Your task to perform on an android device: Open notification settings Image 0: 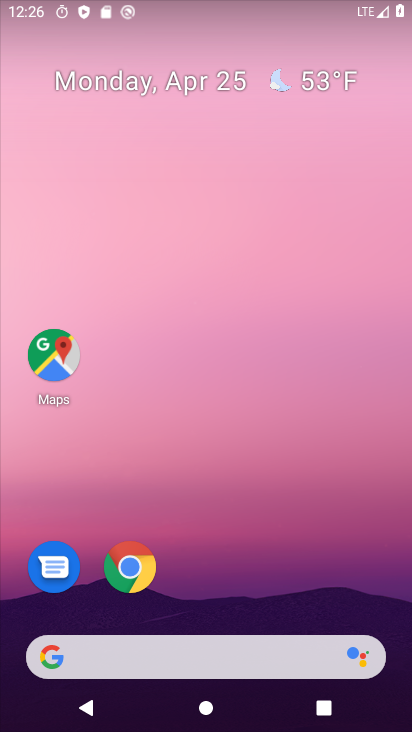
Step 0: drag from (303, 571) to (279, 117)
Your task to perform on an android device: Open notification settings Image 1: 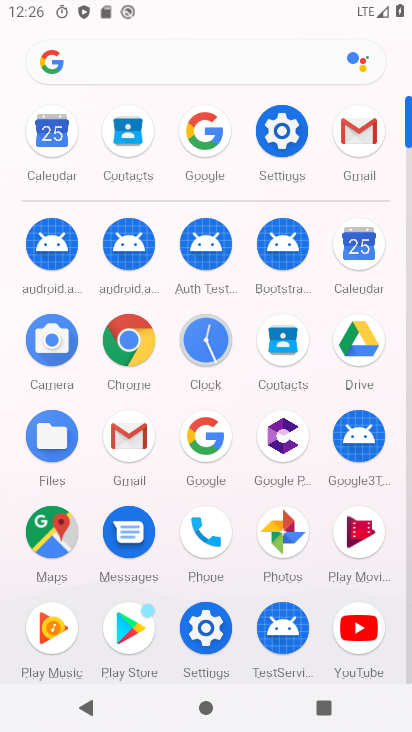
Step 1: click (293, 141)
Your task to perform on an android device: Open notification settings Image 2: 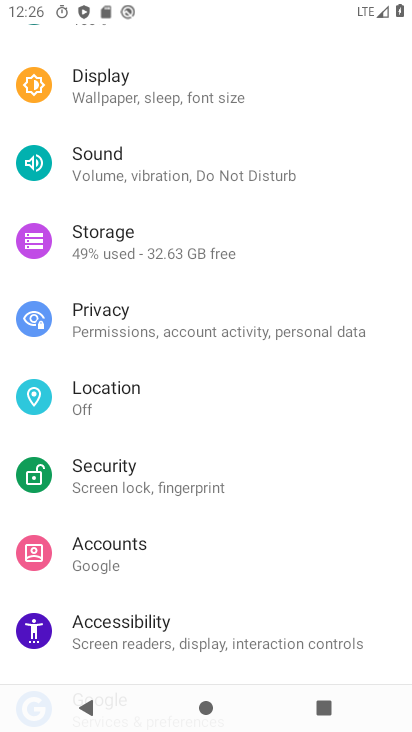
Step 2: drag from (288, 141) to (248, 568)
Your task to perform on an android device: Open notification settings Image 3: 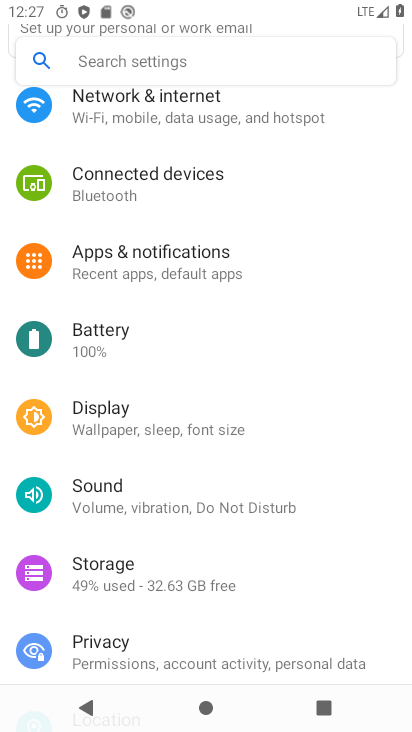
Step 3: click (178, 252)
Your task to perform on an android device: Open notification settings Image 4: 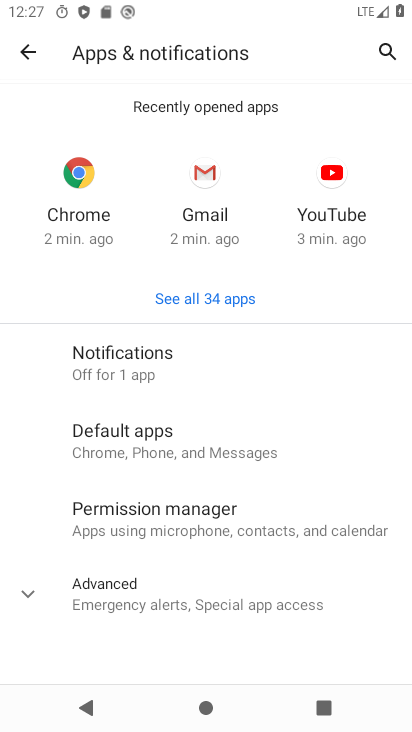
Step 4: task complete